Your task to perform on an android device: open app "Expedia: Hotels, Flights & Car" (install if not already installed) Image 0: 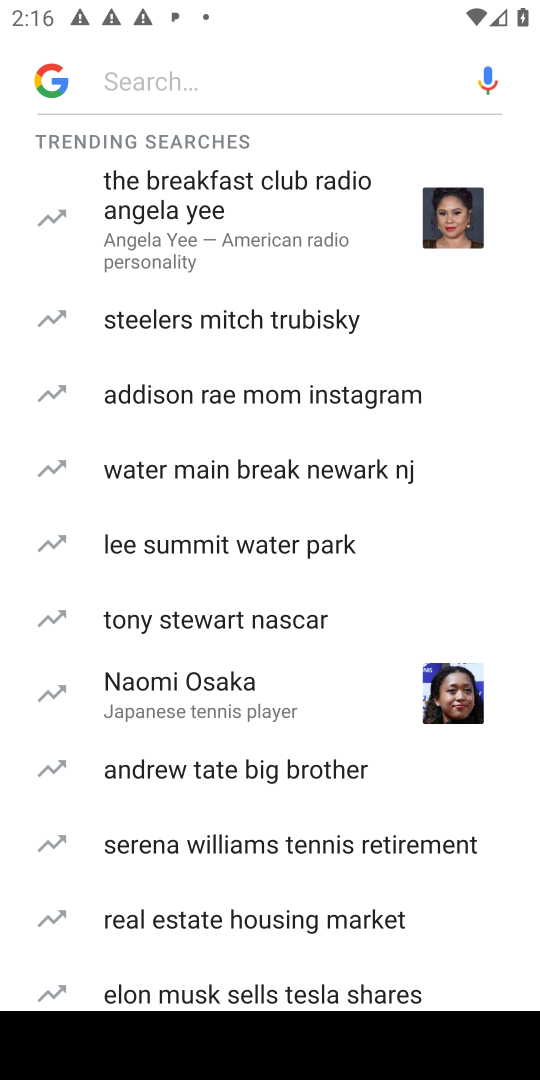
Step 0: press home button
Your task to perform on an android device: open app "Expedia: Hotels, Flights & Car" (install if not already installed) Image 1: 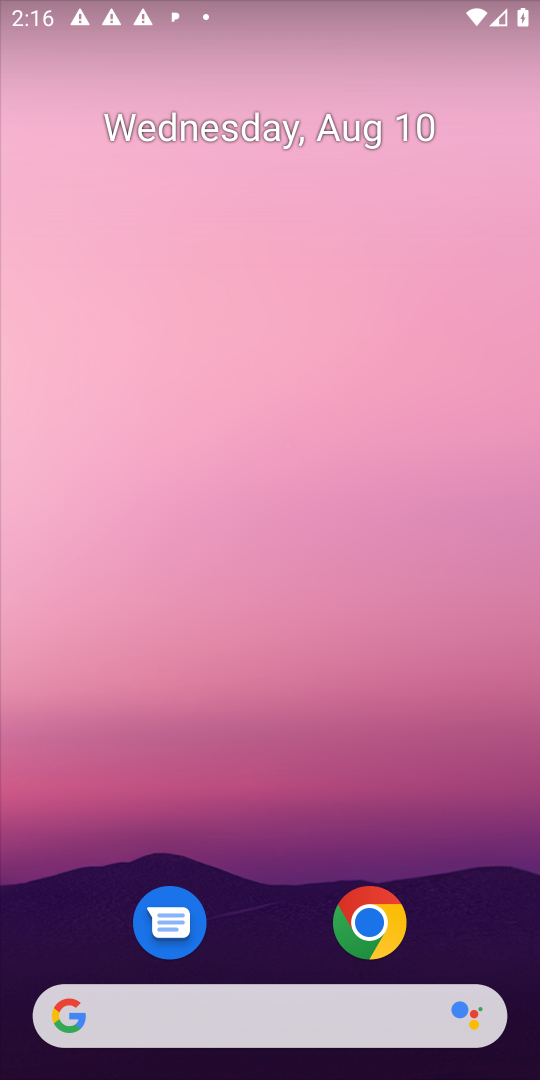
Step 1: drag from (273, 731) to (285, 375)
Your task to perform on an android device: open app "Expedia: Hotels, Flights & Car" (install if not already installed) Image 2: 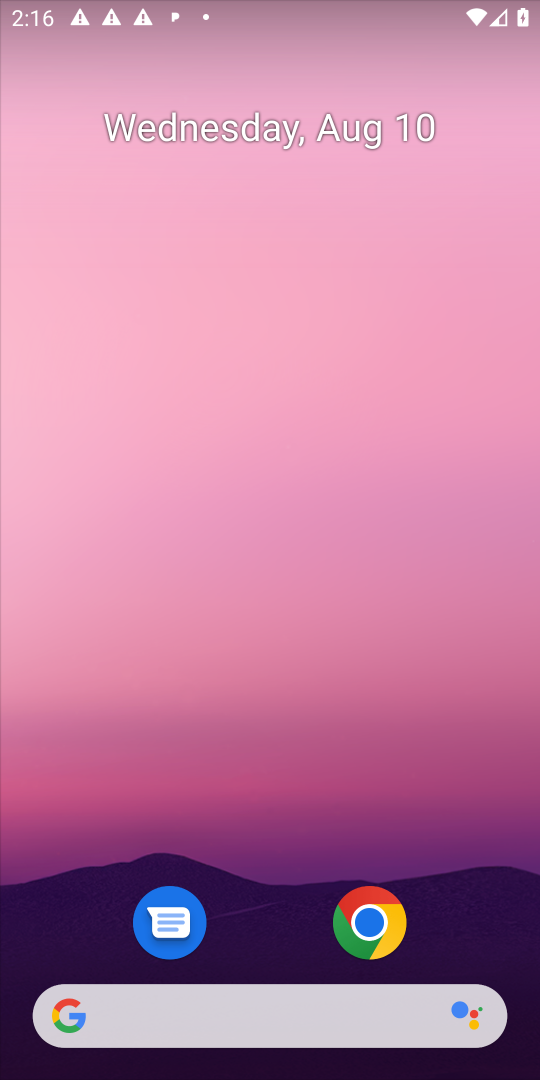
Step 2: drag from (246, 756) to (289, 91)
Your task to perform on an android device: open app "Expedia: Hotels, Flights & Car" (install if not already installed) Image 3: 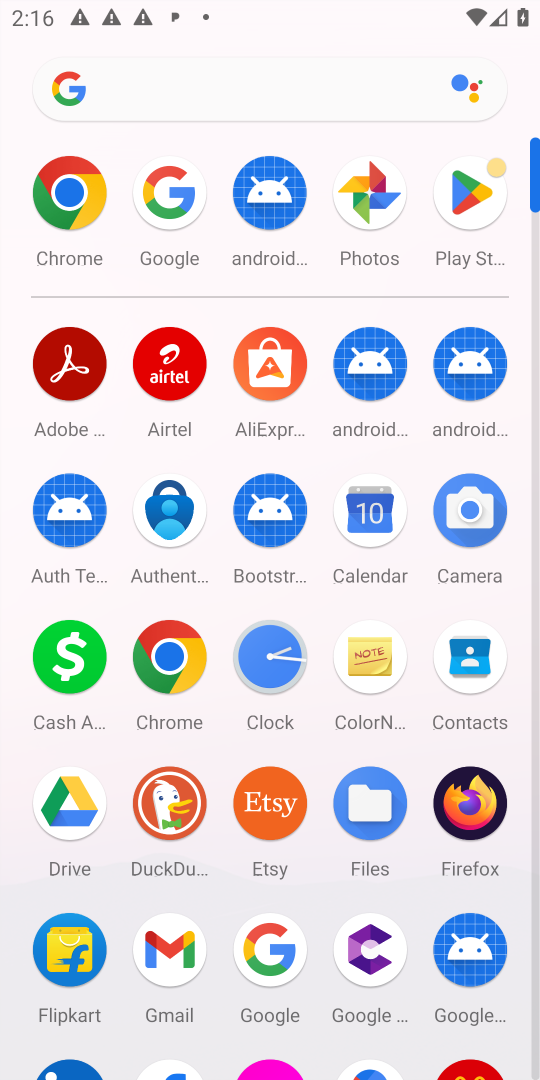
Step 3: click (467, 204)
Your task to perform on an android device: open app "Expedia: Hotels, Flights & Car" (install if not already installed) Image 4: 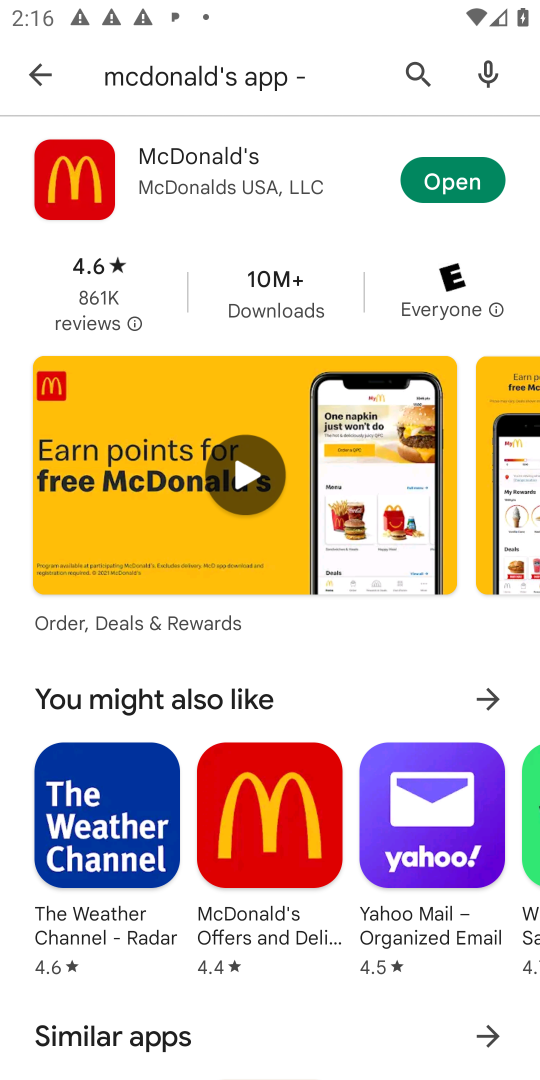
Step 4: click (44, 76)
Your task to perform on an android device: open app "Expedia: Hotels, Flights & Car" (install if not already installed) Image 5: 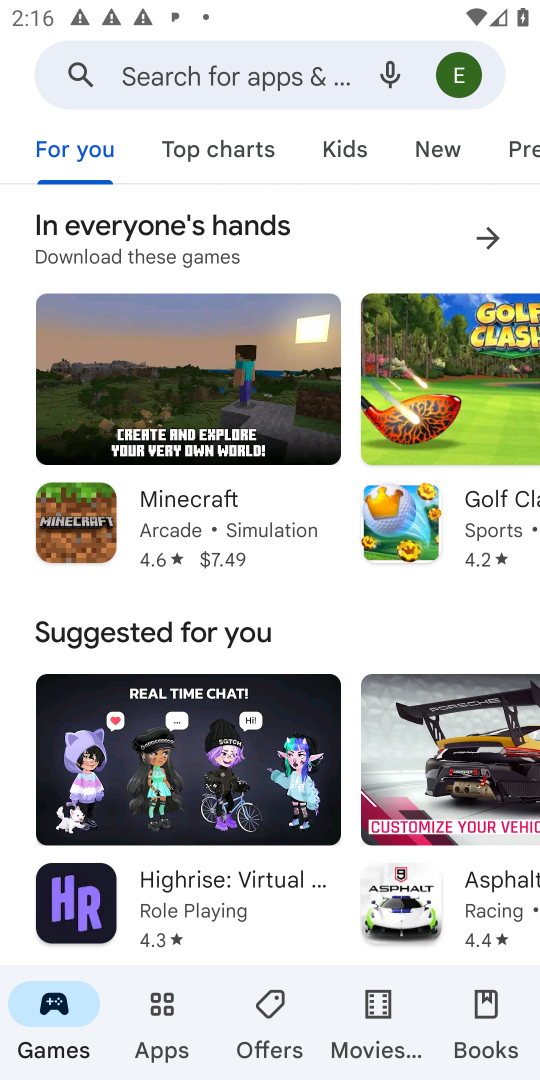
Step 5: click (182, 76)
Your task to perform on an android device: open app "Expedia: Hotels, Flights & Car" (install if not already installed) Image 6: 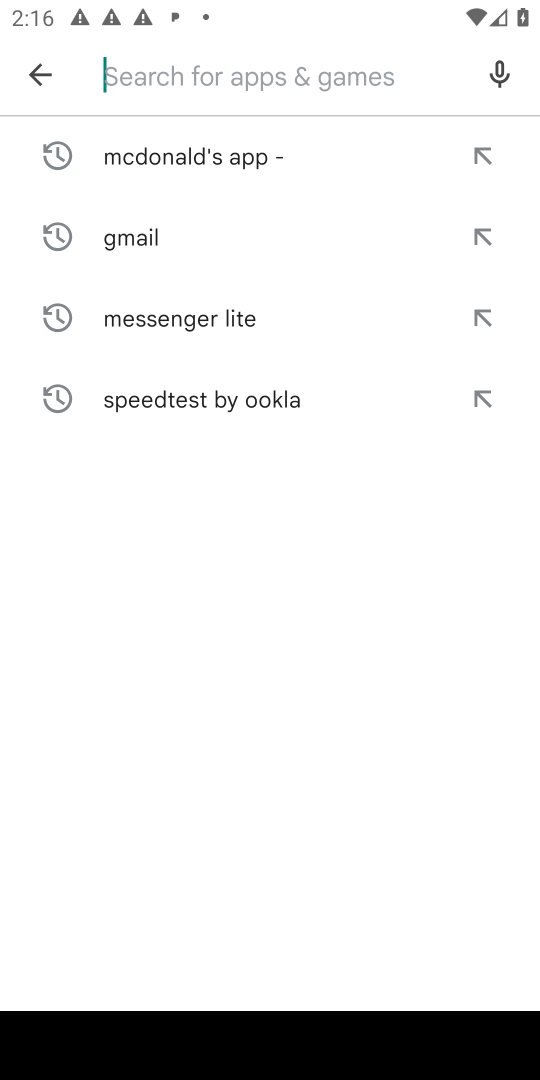
Step 6: type "Expedia"
Your task to perform on an android device: open app "Expedia: Hotels, Flights & Car" (install if not already installed) Image 7: 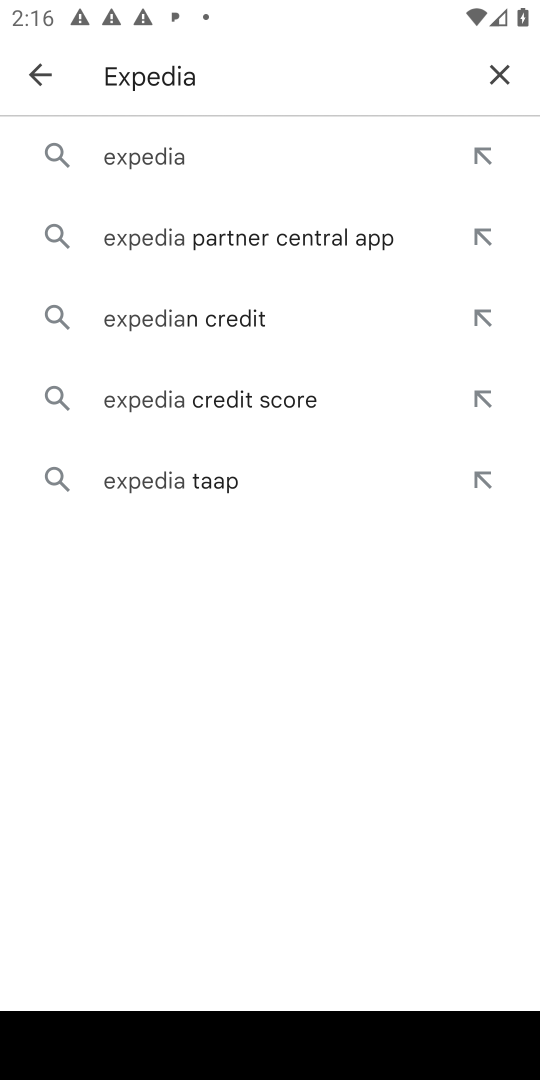
Step 7: click (149, 164)
Your task to perform on an android device: open app "Expedia: Hotels, Flights & Car" (install if not already installed) Image 8: 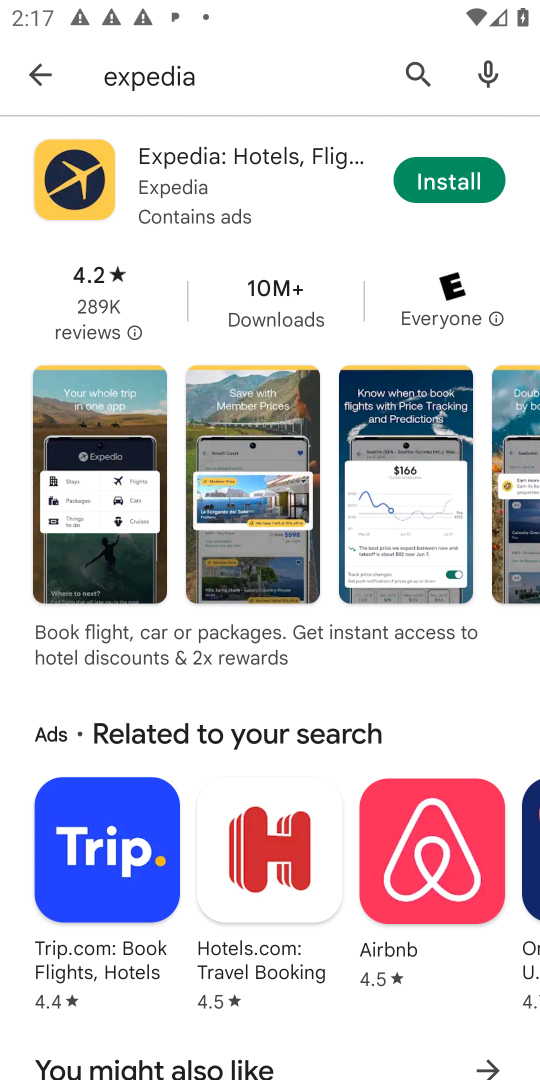
Step 8: click (453, 167)
Your task to perform on an android device: open app "Expedia: Hotels, Flights & Car" (install if not already installed) Image 9: 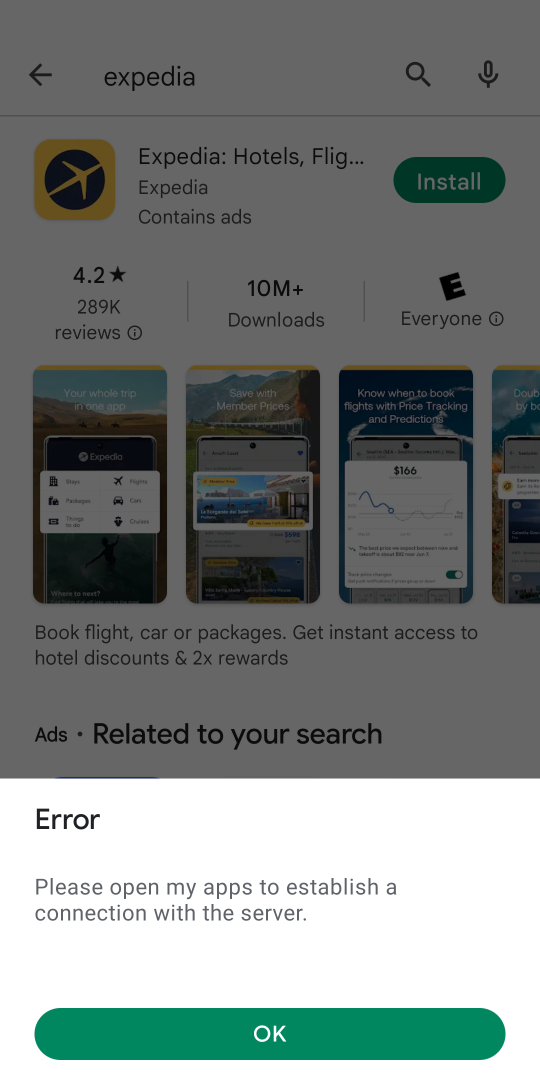
Step 9: task complete